Your task to perform on an android device: see sites visited before in the chrome app Image 0: 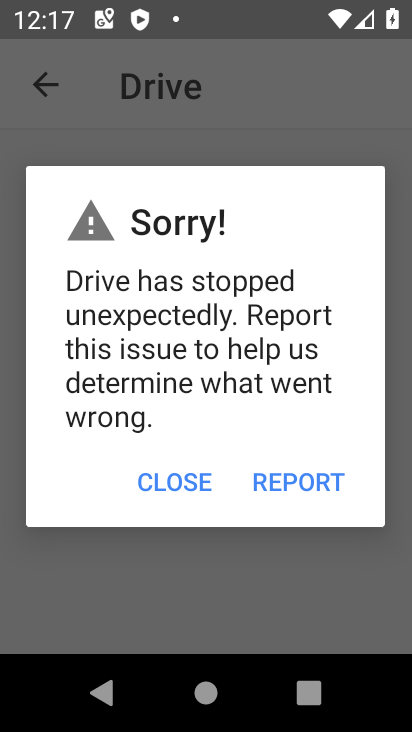
Step 0: press back button
Your task to perform on an android device: see sites visited before in the chrome app Image 1: 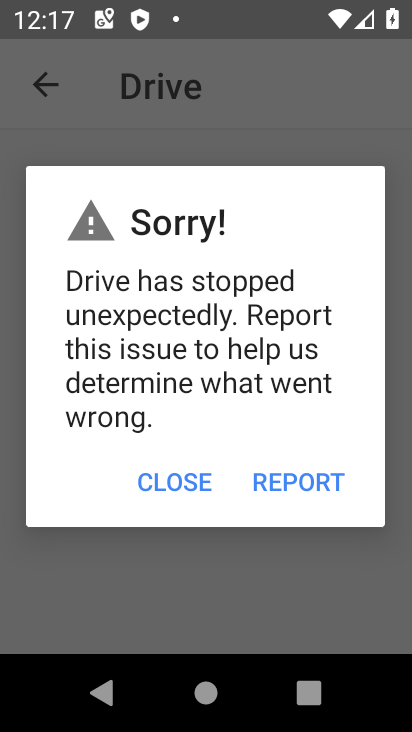
Step 1: press back button
Your task to perform on an android device: see sites visited before in the chrome app Image 2: 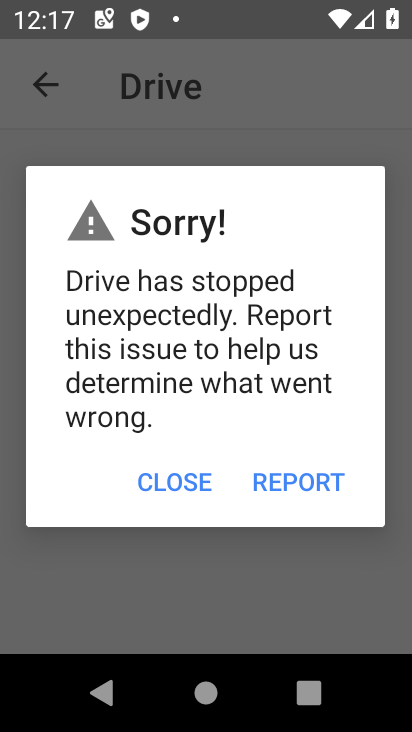
Step 2: press home button
Your task to perform on an android device: see sites visited before in the chrome app Image 3: 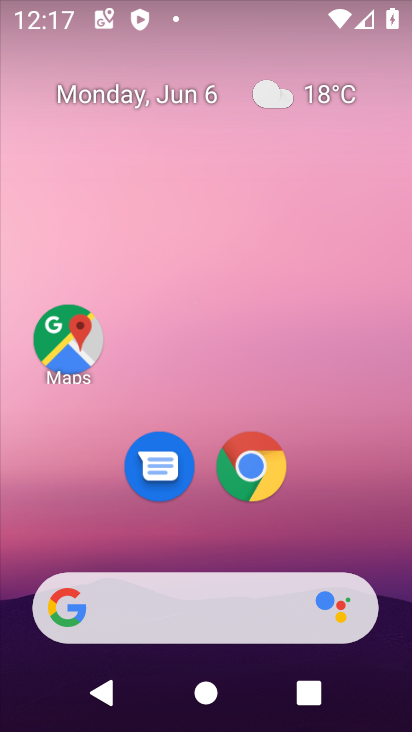
Step 3: drag from (316, 467) to (200, 51)
Your task to perform on an android device: see sites visited before in the chrome app Image 4: 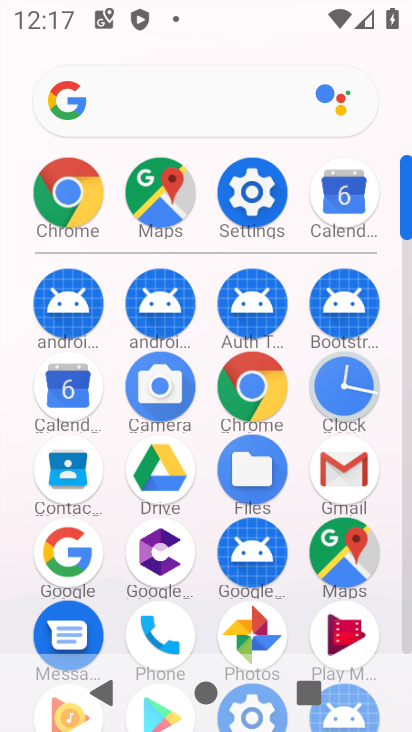
Step 4: click (66, 190)
Your task to perform on an android device: see sites visited before in the chrome app Image 5: 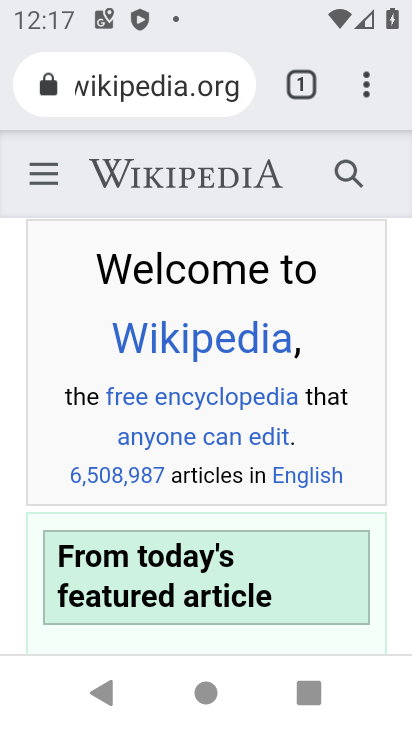
Step 5: drag from (366, 84) to (86, 400)
Your task to perform on an android device: see sites visited before in the chrome app Image 6: 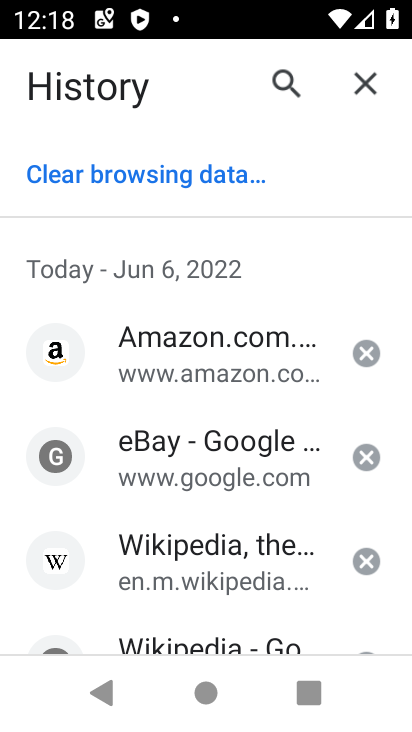
Step 6: click (140, 180)
Your task to perform on an android device: see sites visited before in the chrome app Image 7: 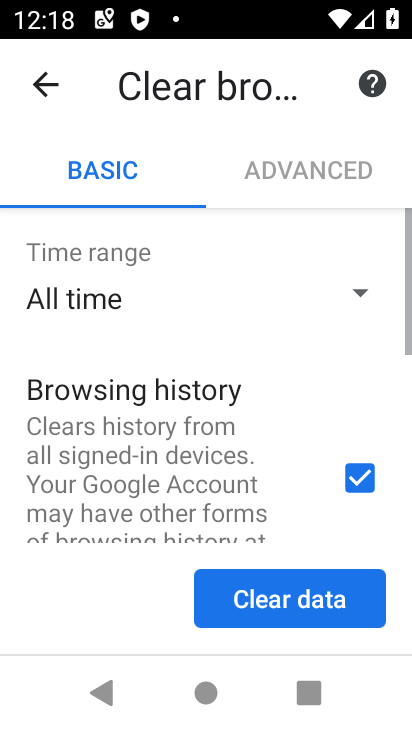
Step 7: click (282, 595)
Your task to perform on an android device: see sites visited before in the chrome app Image 8: 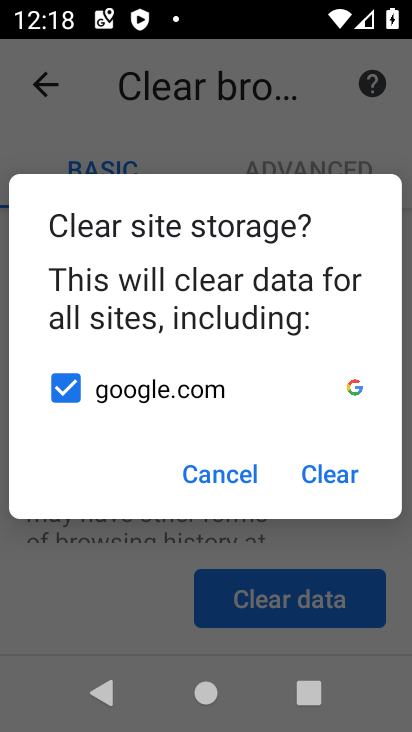
Step 8: click (338, 454)
Your task to perform on an android device: see sites visited before in the chrome app Image 9: 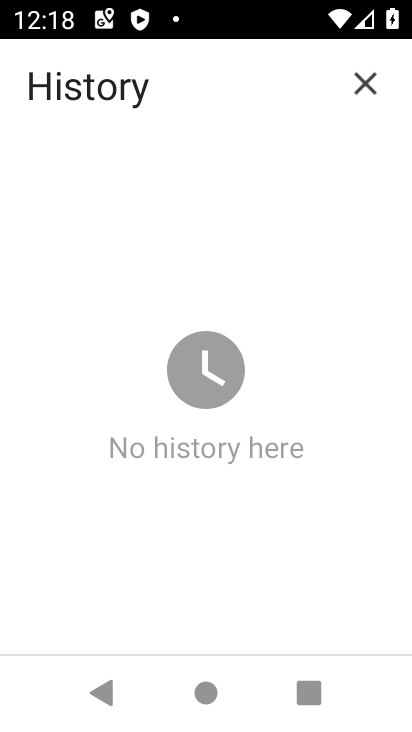
Step 9: task complete